Your task to perform on an android device: Open network settings Image 0: 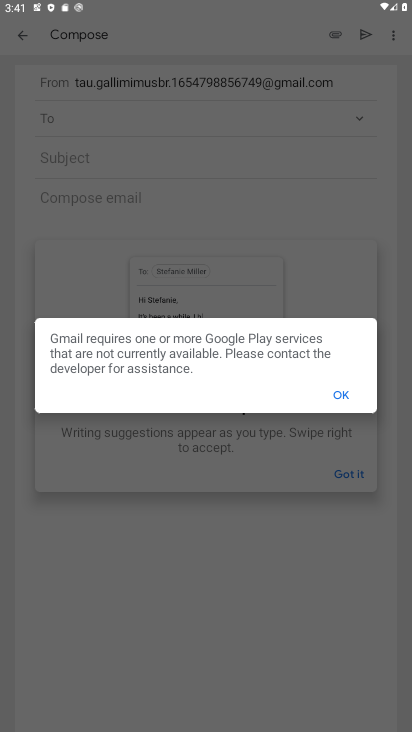
Step 0: press home button
Your task to perform on an android device: Open network settings Image 1: 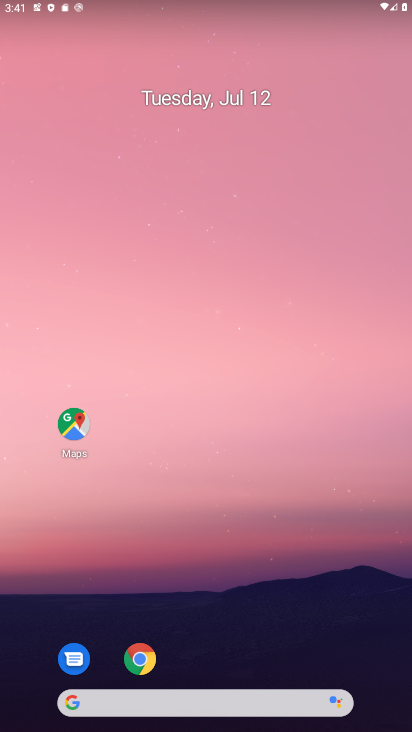
Step 1: drag from (227, 724) to (225, 162)
Your task to perform on an android device: Open network settings Image 2: 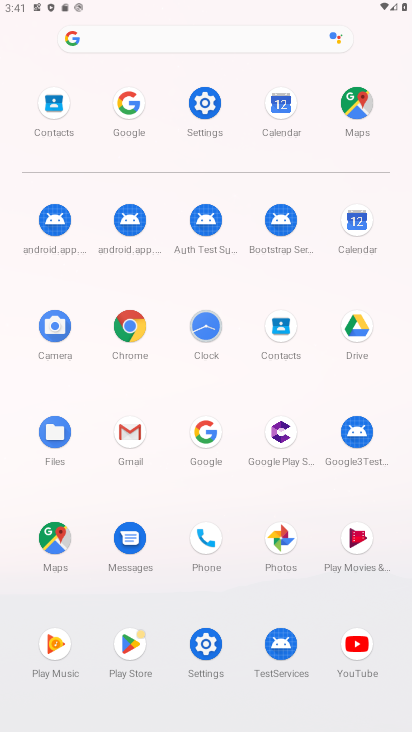
Step 2: click (207, 648)
Your task to perform on an android device: Open network settings Image 3: 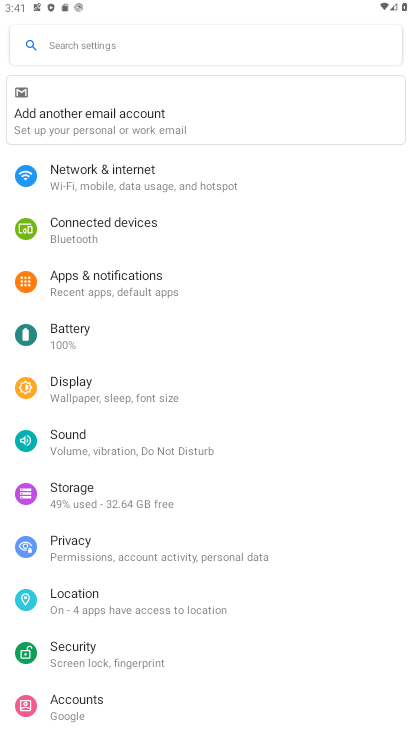
Step 3: click (91, 177)
Your task to perform on an android device: Open network settings Image 4: 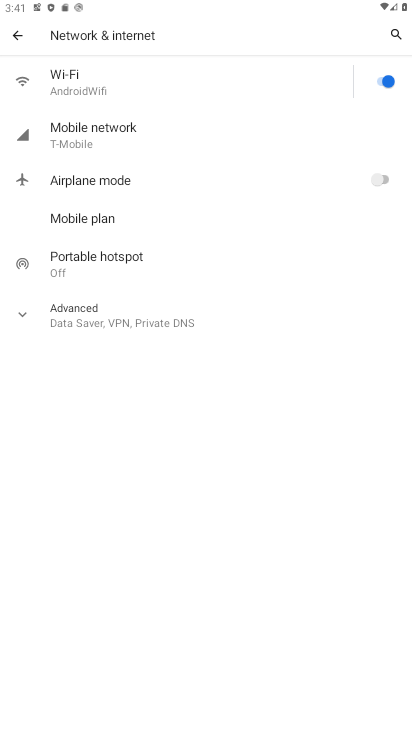
Step 4: click (132, 127)
Your task to perform on an android device: Open network settings Image 5: 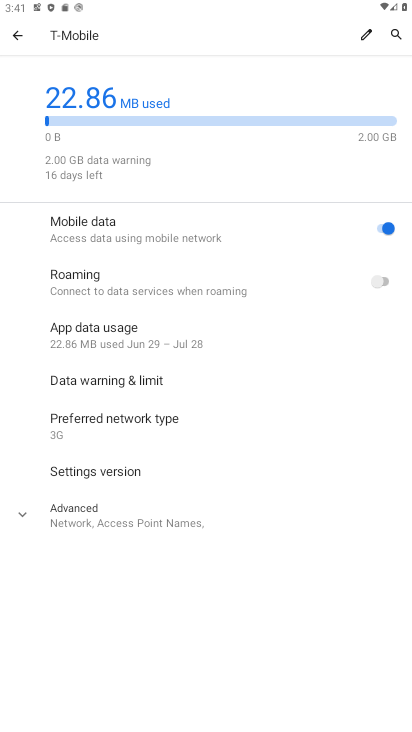
Step 5: task complete